Your task to perform on an android device: Go to network settings Image 0: 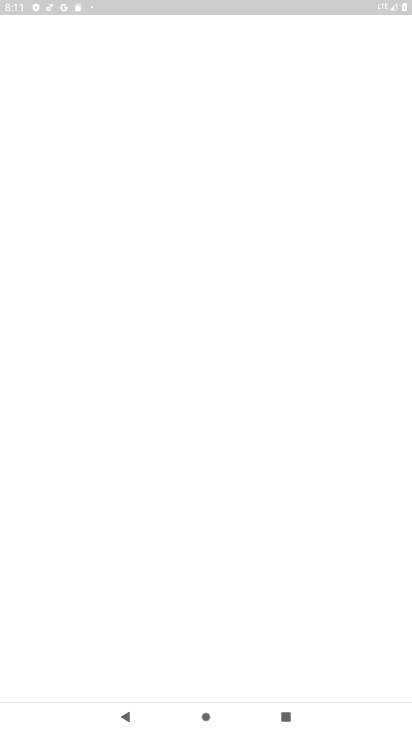
Step 0: press home button
Your task to perform on an android device: Go to network settings Image 1: 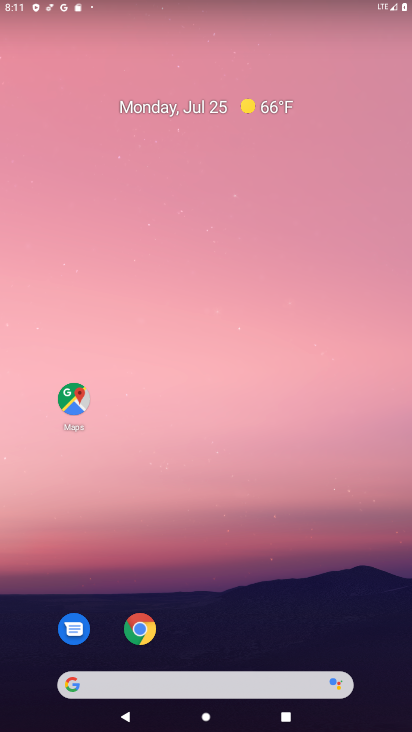
Step 1: drag from (205, 653) to (229, 29)
Your task to perform on an android device: Go to network settings Image 2: 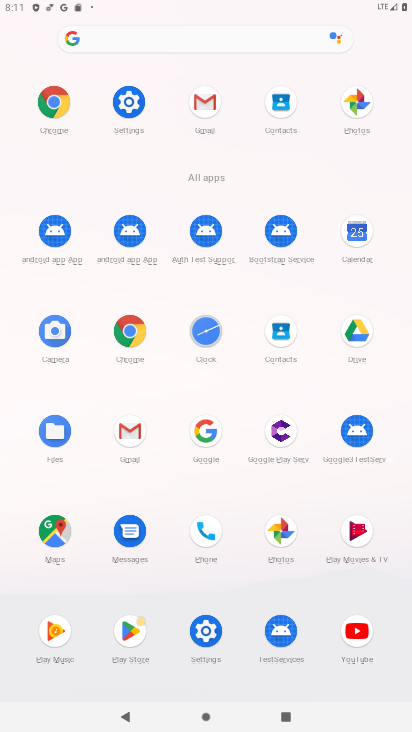
Step 2: click (128, 95)
Your task to perform on an android device: Go to network settings Image 3: 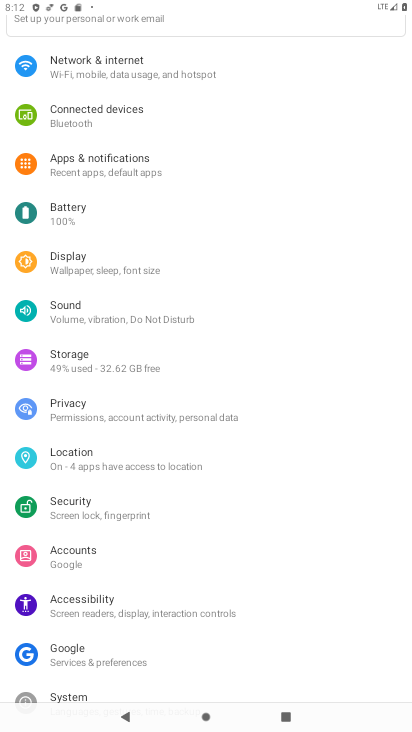
Step 3: click (111, 65)
Your task to perform on an android device: Go to network settings Image 4: 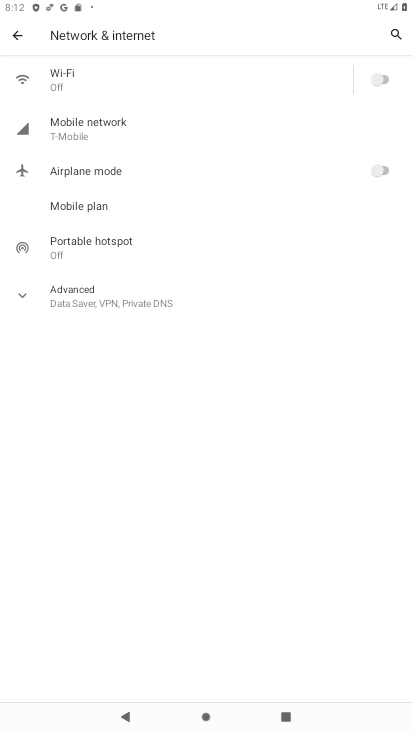
Step 4: click (32, 292)
Your task to perform on an android device: Go to network settings Image 5: 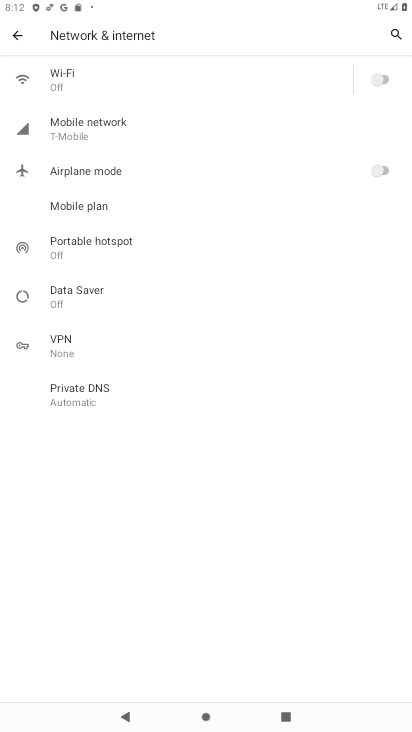
Step 5: task complete